Your task to perform on an android device: Open Chrome and go to settings Image 0: 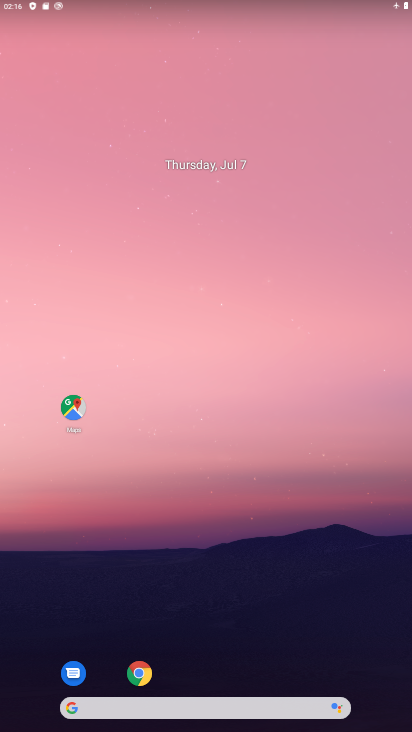
Step 0: click (150, 667)
Your task to perform on an android device: Open Chrome and go to settings Image 1: 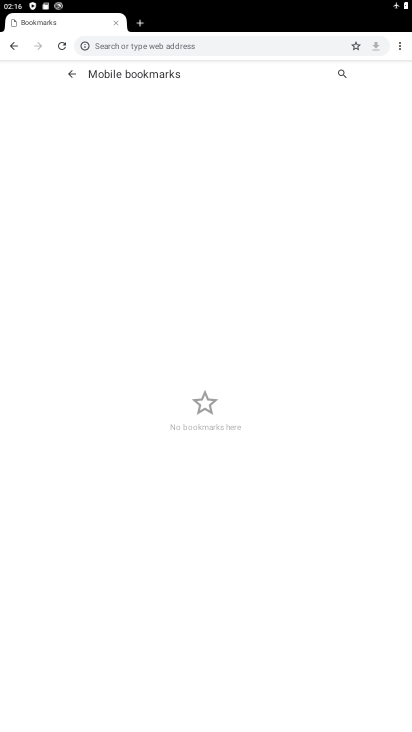
Step 1: click (393, 42)
Your task to perform on an android device: Open Chrome and go to settings Image 2: 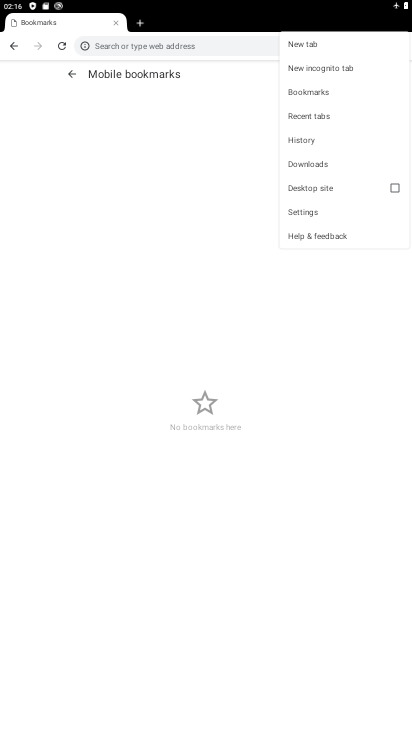
Step 2: click (312, 207)
Your task to perform on an android device: Open Chrome and go to settings Image 3: 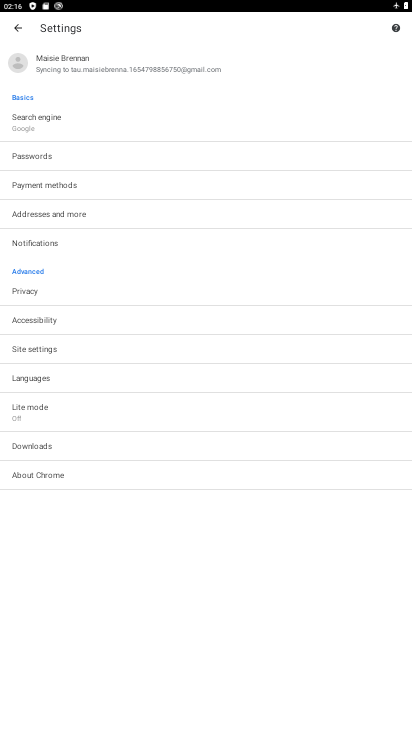
Step 3: task complete